Your task to perform on an android device: install app "YouTube Kids" Image 0: 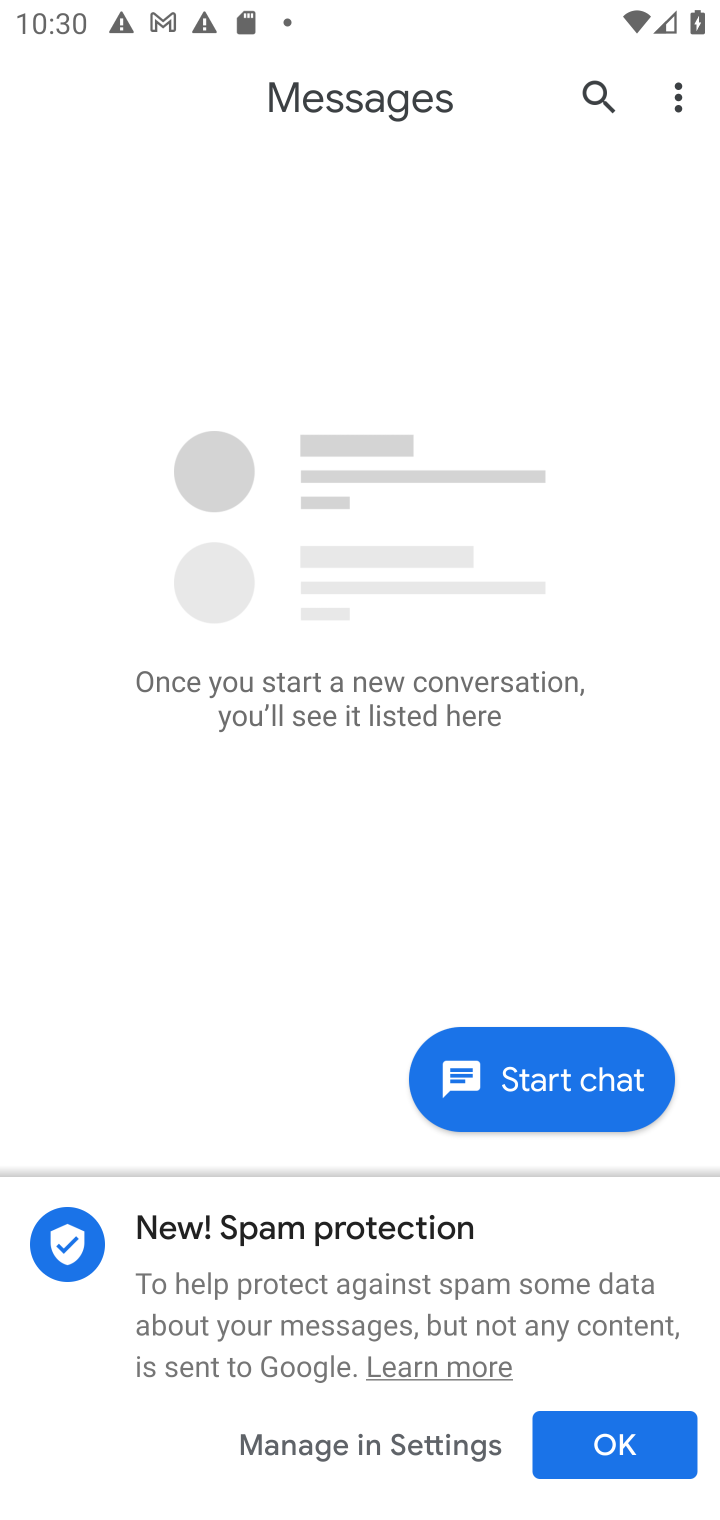
Step 0: press home button
Your task to perform on an android device: install app "YouTube Kids" Image 1: 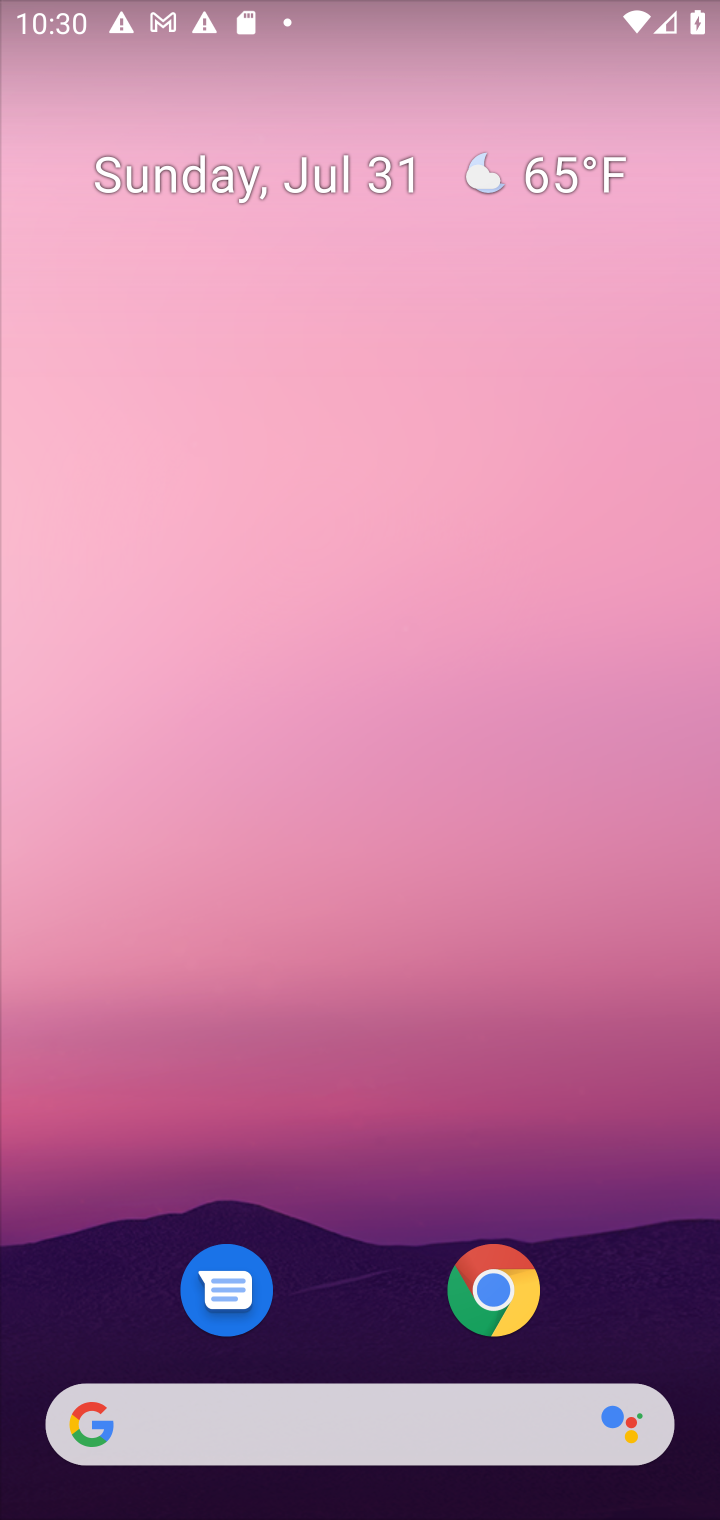
Step 1: drag from (639, 1080) to (590, 154)
Your task to perform on an android device: install app "YouTube Kids" Image 2: 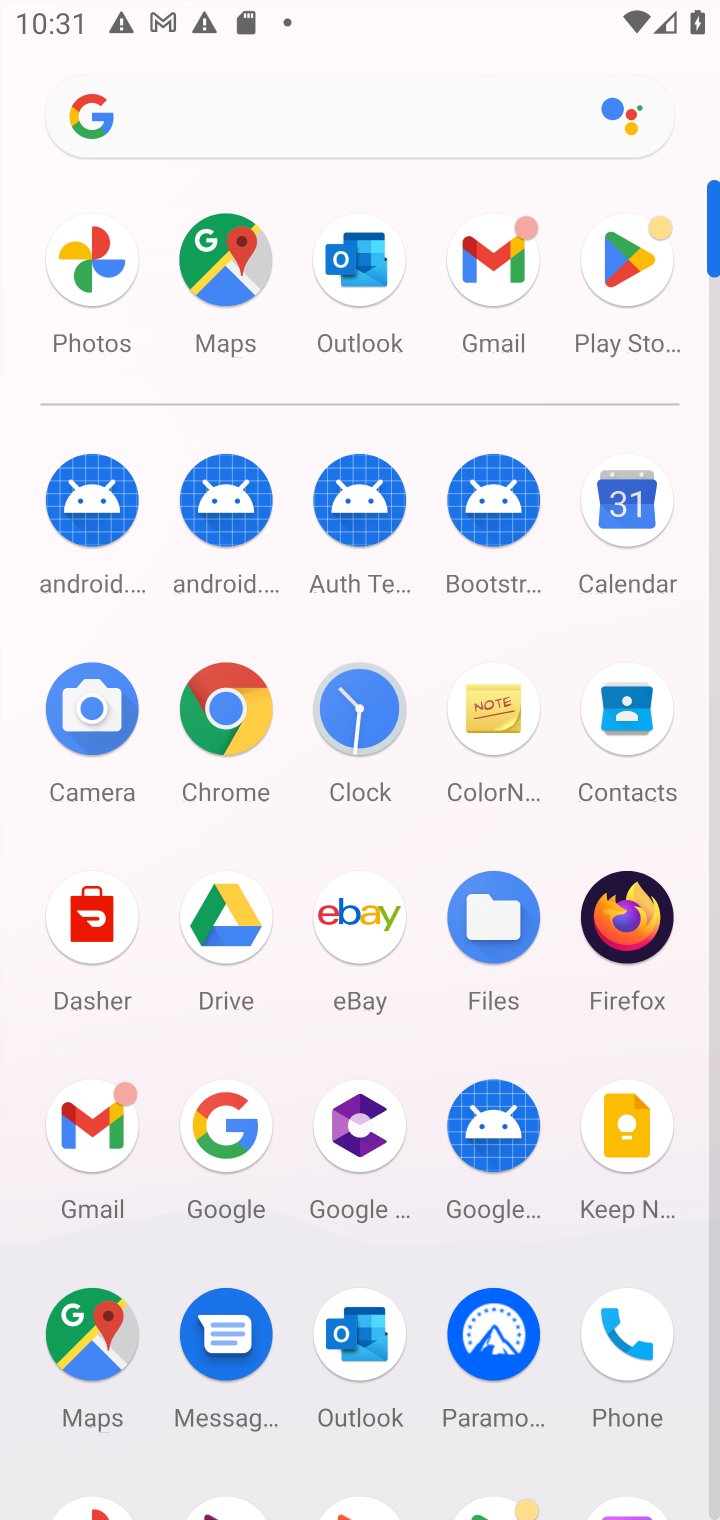
Step 2: click (646, 263)
Your task to perform on an android device: install app "YouTube Kids" Image 3: 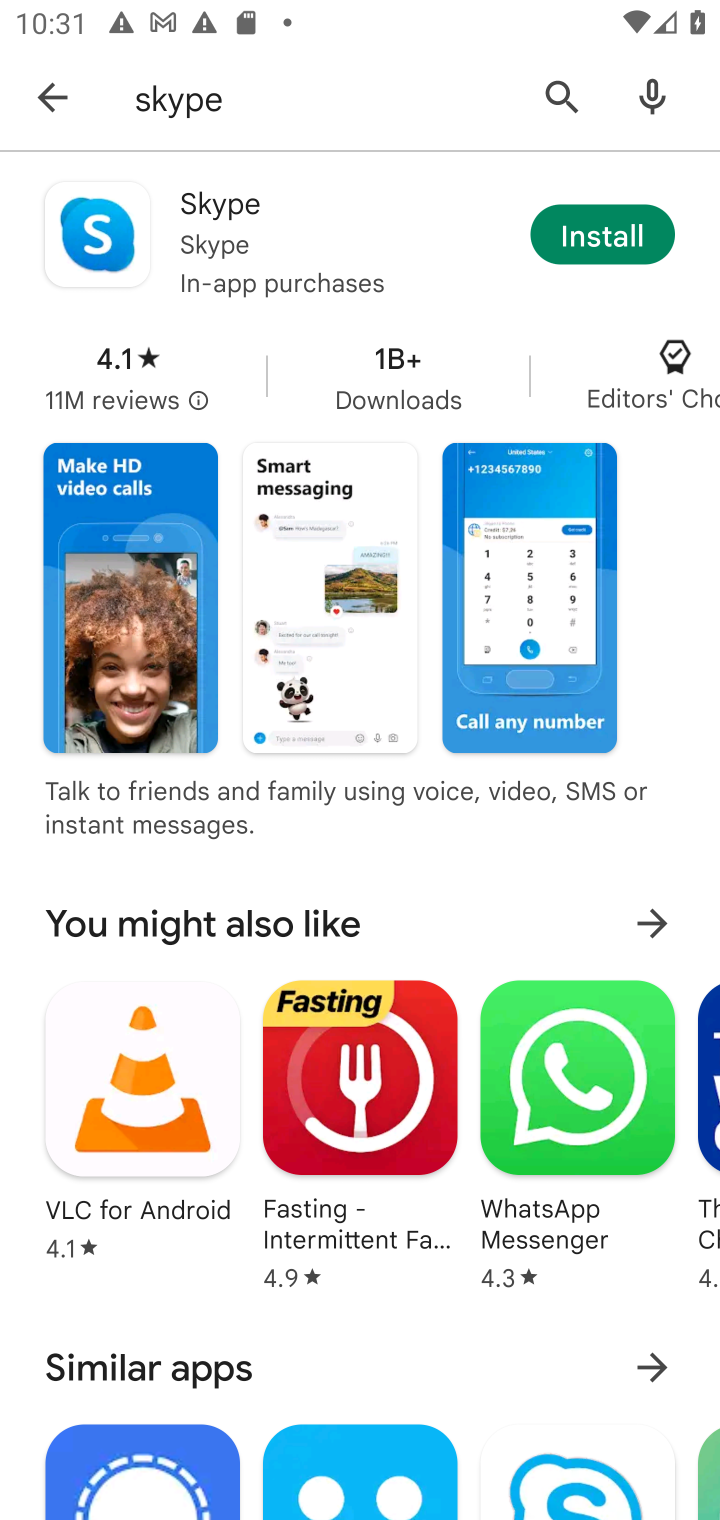
Step 3: click (552, 94)
Your task to perform on an android device: install app "YouTube Kids" Image 4: 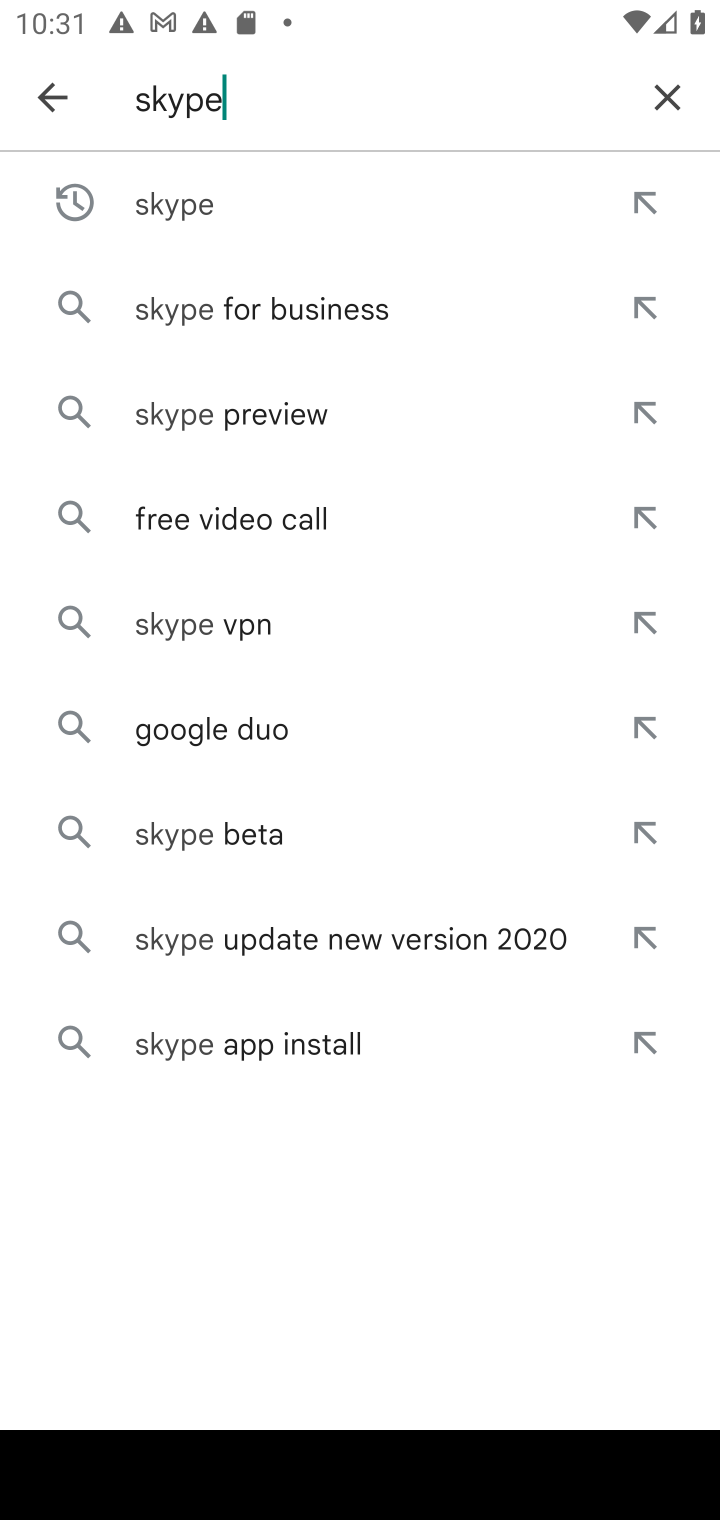
Step 4: click (651, 97)
Your task to perform on an android device: install app "YouTube Kids" Image 5: 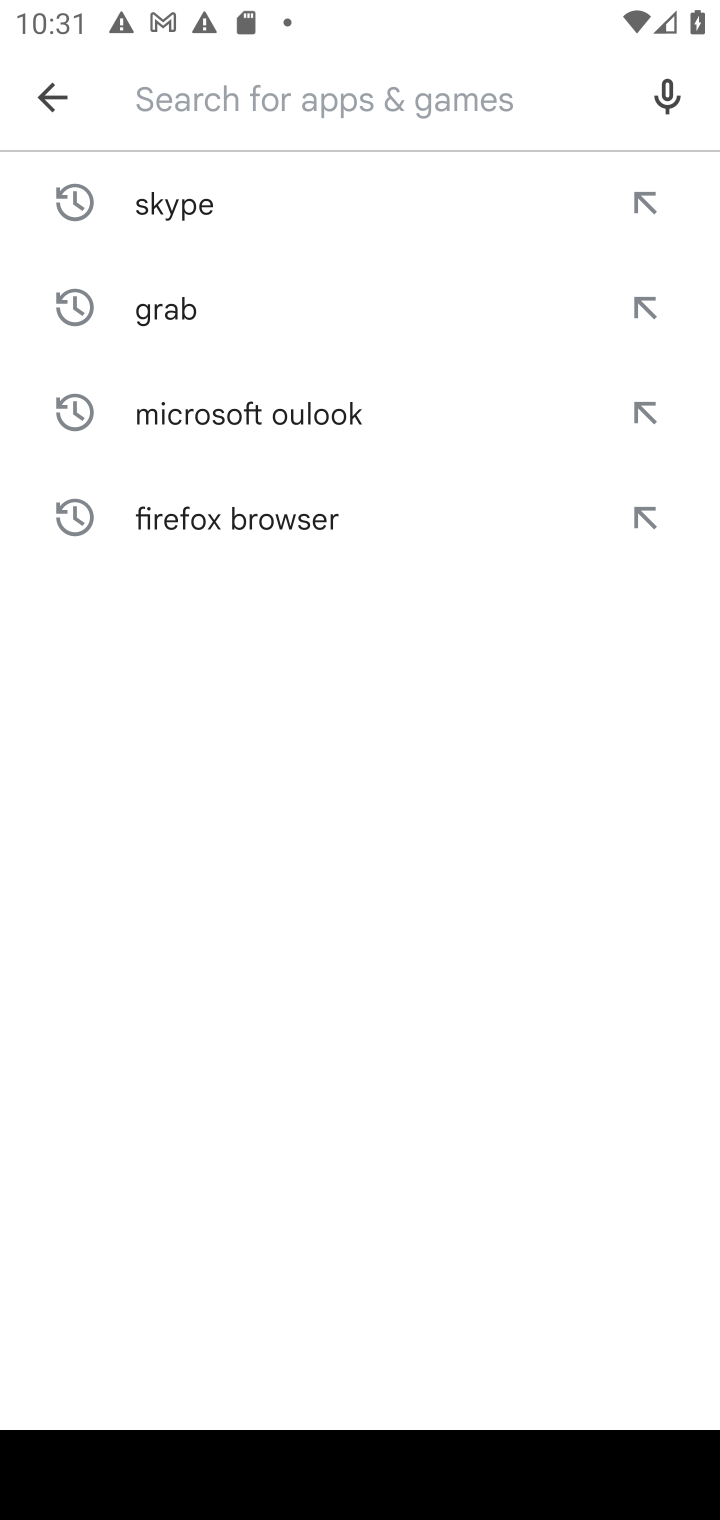
Step 5: type "yoytube kids"
Your task to perform on an android device: install app "YouTube Kids" Image 6: 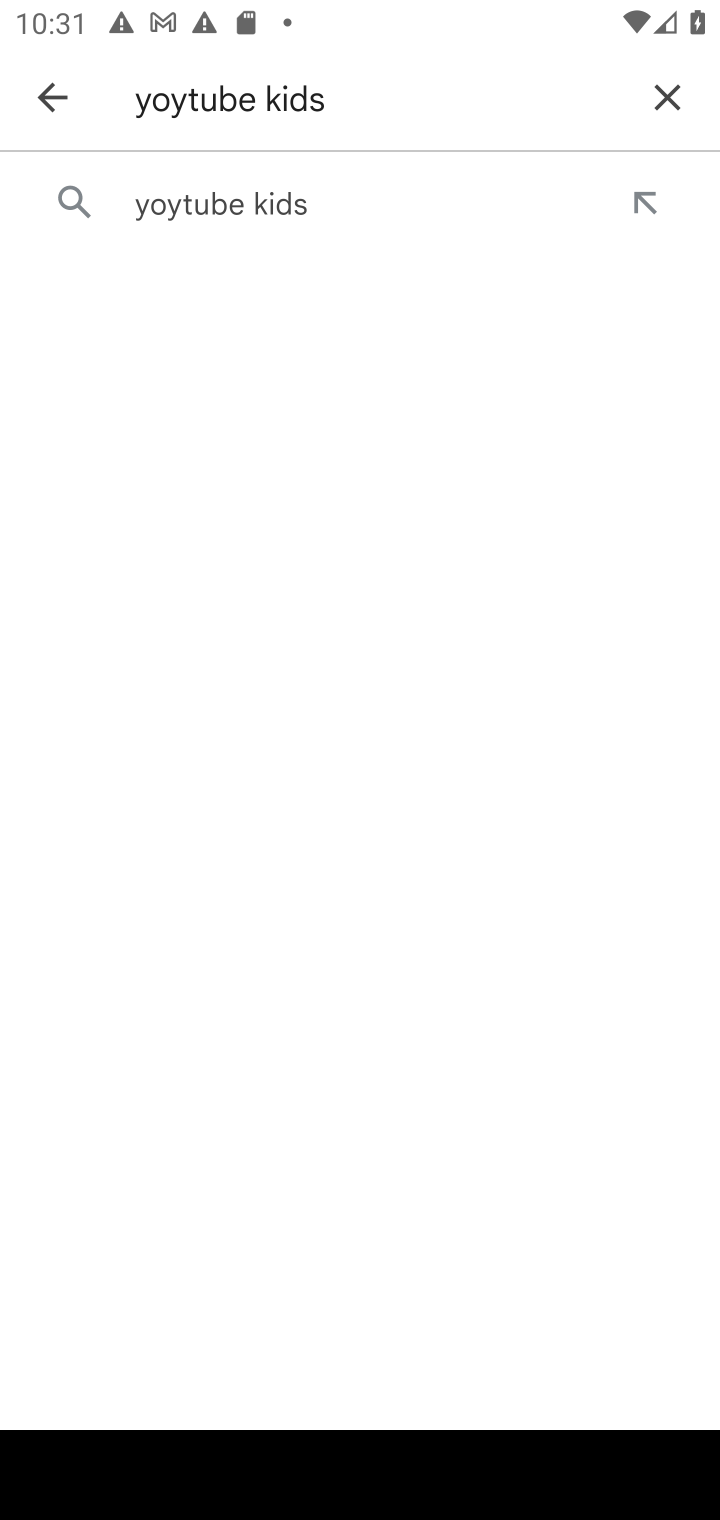
Step 6: click (385, 206)
Your task to perform on an android device: install app "YouTube Kids" Image 7: 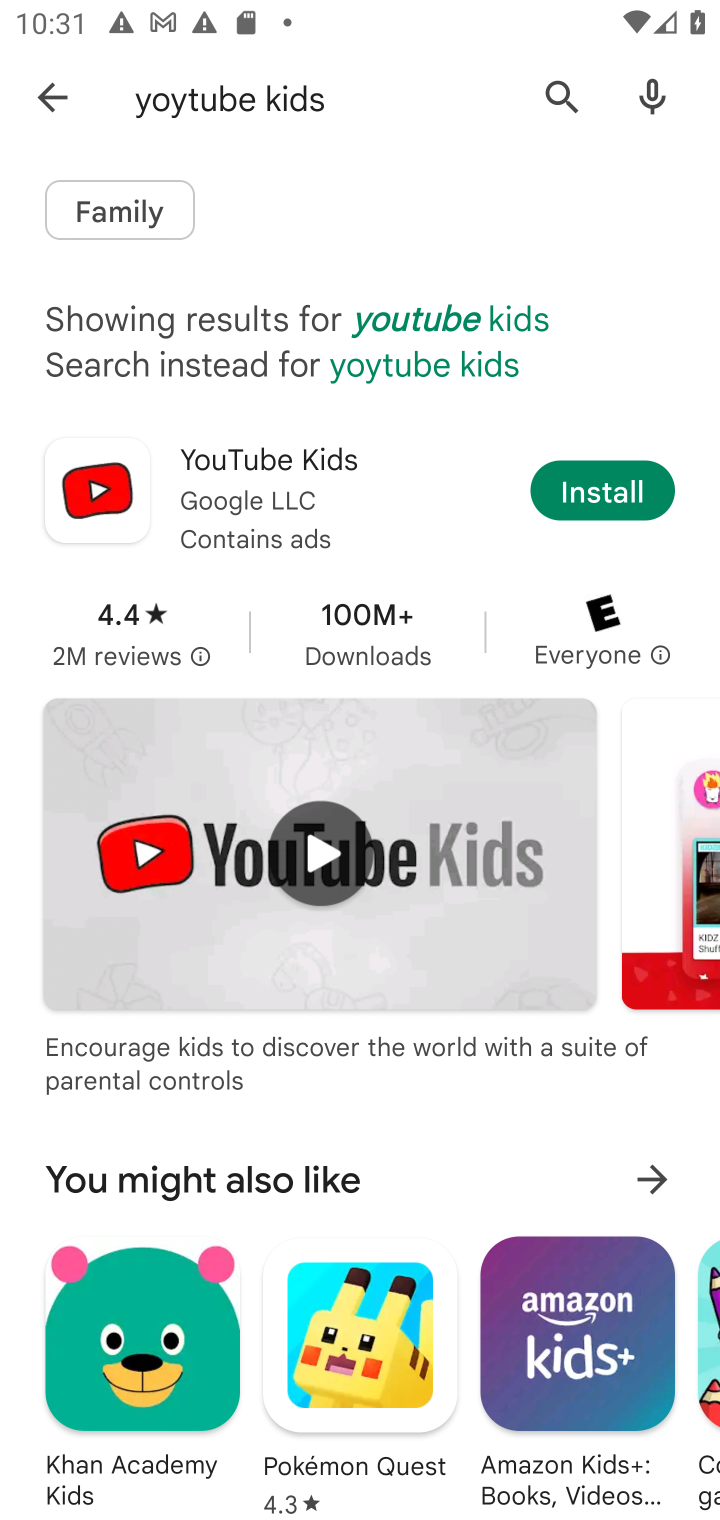
Step 7: click (614, 490)
Your task to perform on an android device: install app "YouTube Kids" Image 8: 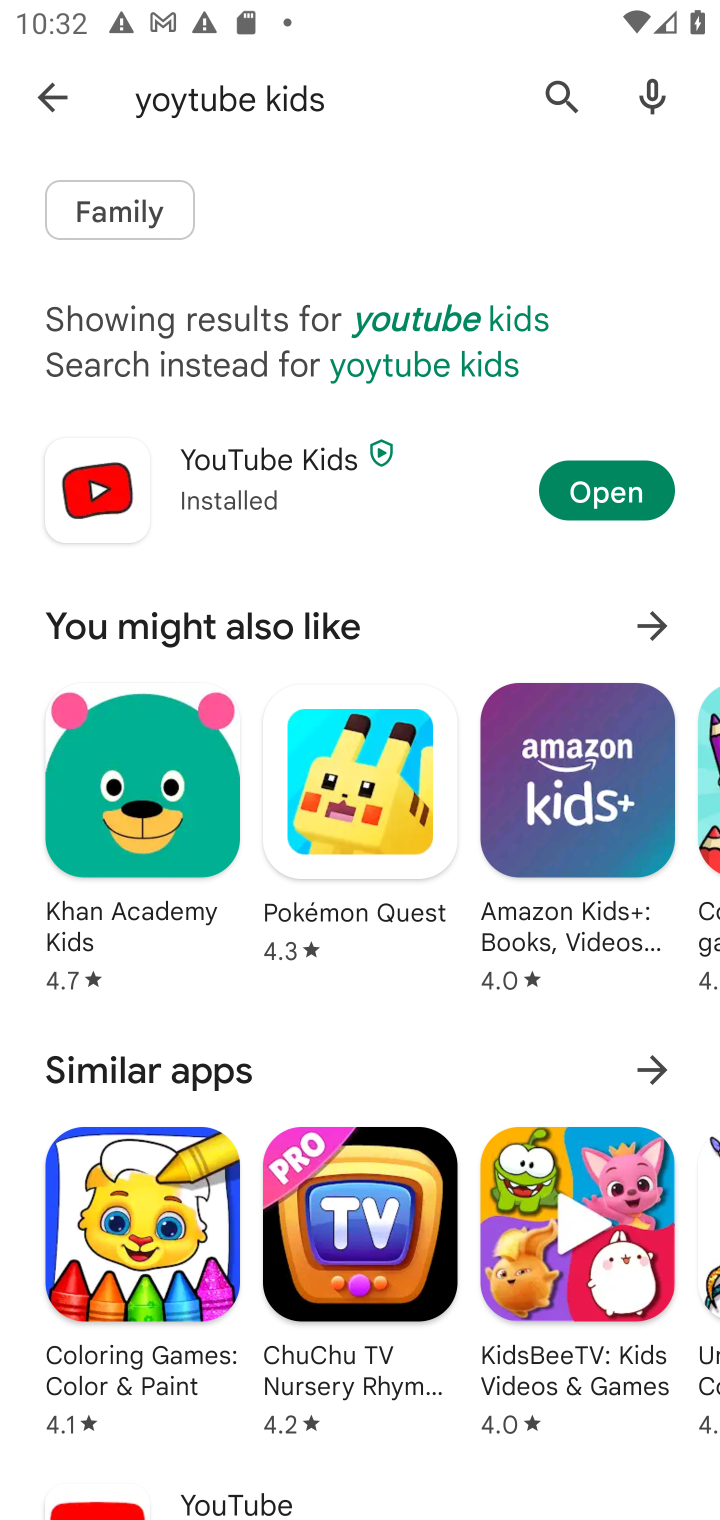
Step 8: task complete